Your task to perform on an android device: Set the phone to "Do not disturb". Image 0: 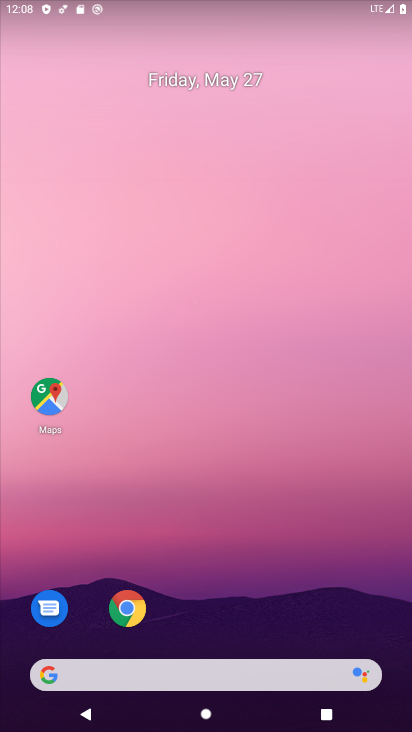
Step 0: press home button
Your task to perform on an android device: Set the phone to "Do not disturb". Image 1: 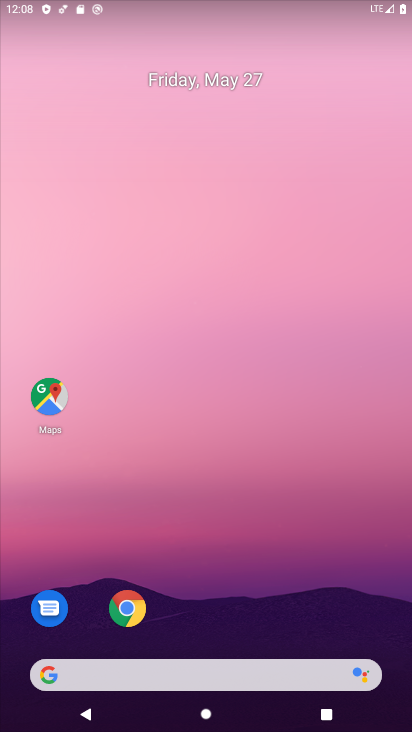
Step 1: drag from (176, 671) to (290, 154)
Your task to perform on an android device: Set the phone to "Do not disturb". Image 2: 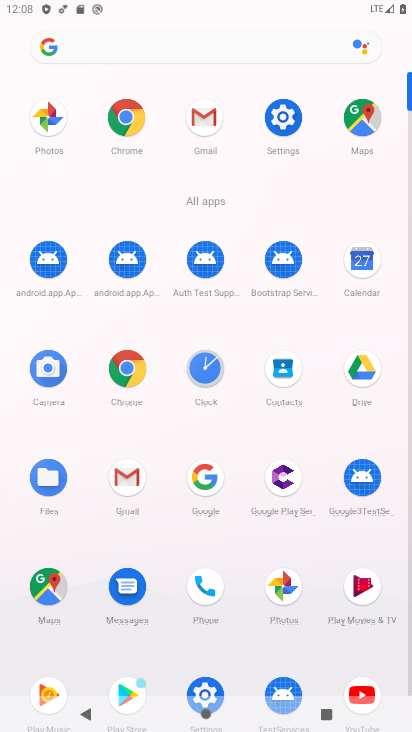
Step 2: click (283, 113)
Your task to perform on an android device: Set the phone to "Do not disturb". Image 3: 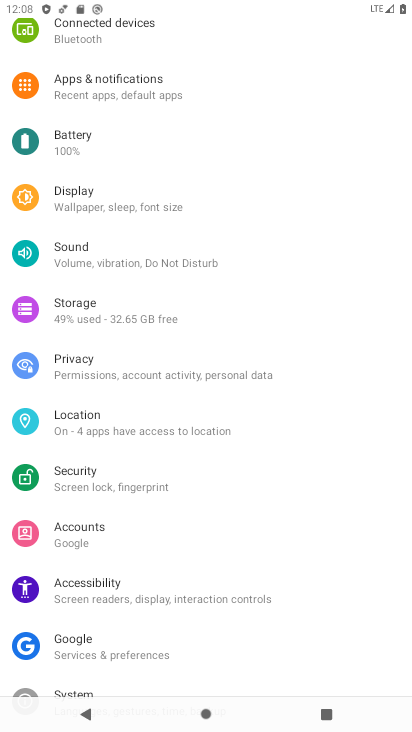
Step 3: click (122, 265)
Your task to perform on an android device: Set the phone to "Do not disturb". Image 4: 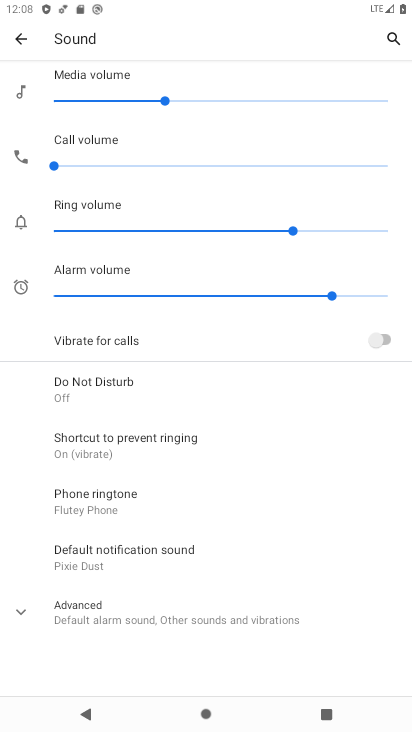
Step 4: click (90, 381)
Your task to perform on an android device: Set the phone to "Do not disturb". Image 5: 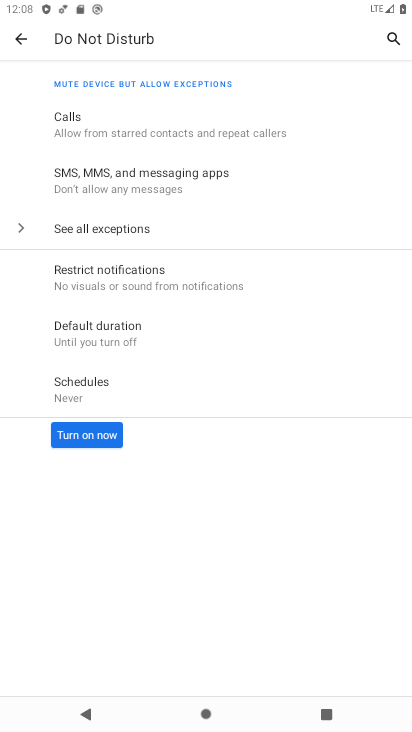
Step 5: click (95, 432)
Your task to perform on an android device: Set the phone to "Do not disturb". Image 6: 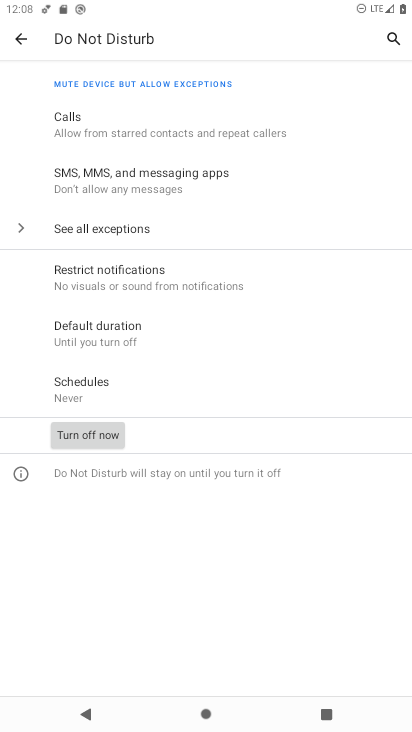
Step 6: task complete